Your task to perform on an android device: turn off picture-in-picture Image 0: 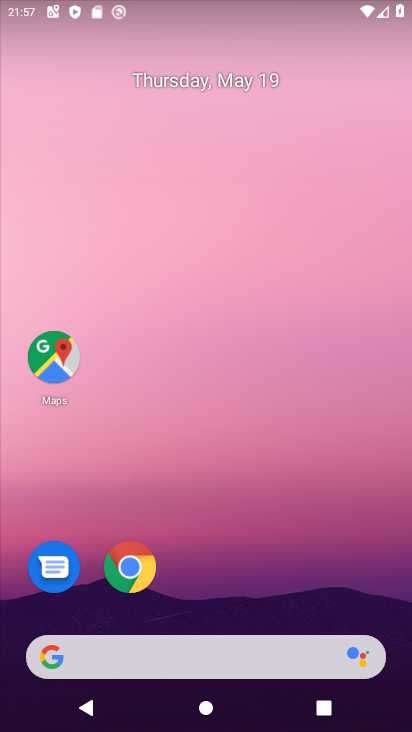
Step 0: click (142, 564)
Your task to perform on an android device: turn off picture-in-picture Image 1: 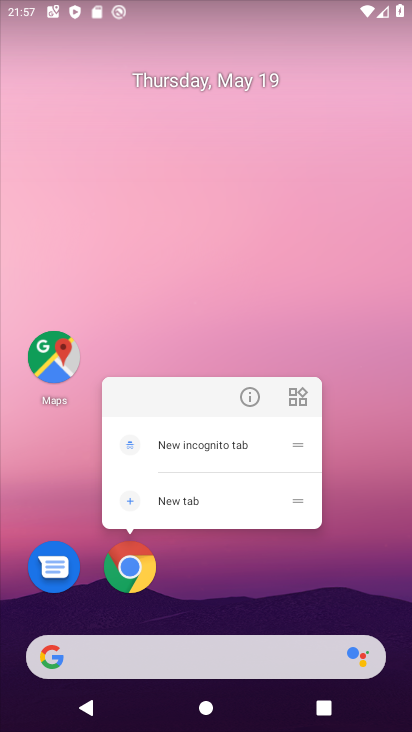
Step 1: click (247, 392)
Your task to perform on an android device: turn off picture-in-picture Image 2: 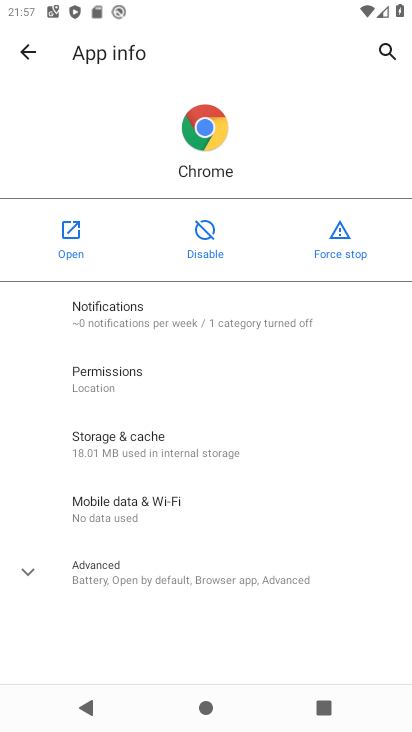
Step 2: click (124, 579)
Your task to perform on an android device: turn off picture-in-picture Image 3: 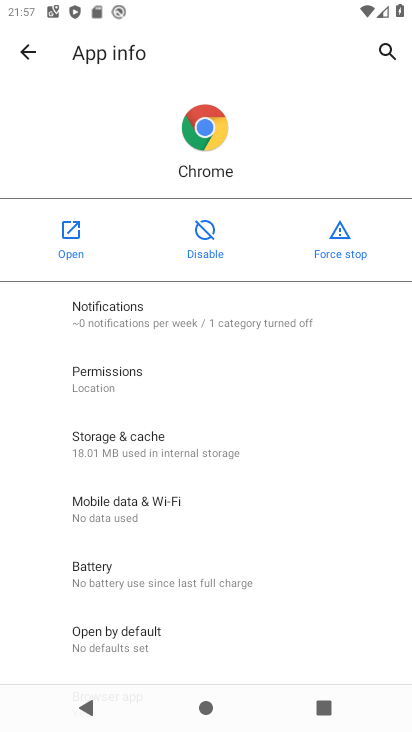
Step 3: drag from (123, 580) to (122, 193)
Your task to perform on an android device: turn off picture-in-picture Image 4: 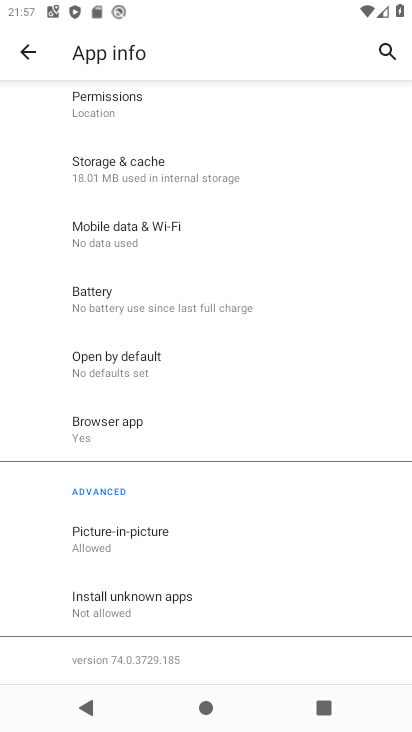
Step 4: click (118, 540)
Your task to perform on an android device: turn off picture-in-picture Image 5: 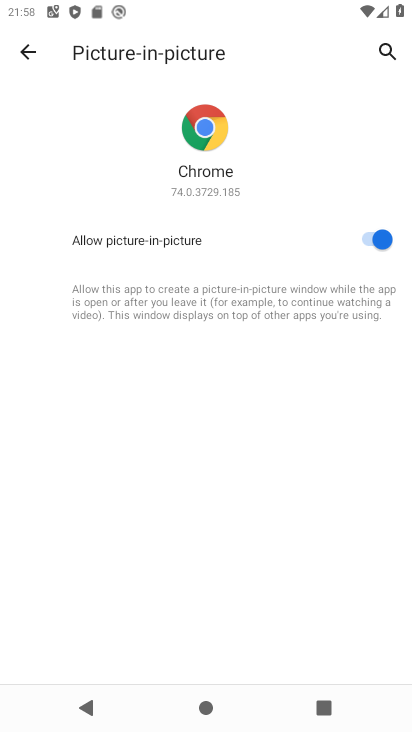
Step 5: click (370, 223)
Your task to perform on an android device: turn off picture-in-picture Image 6: 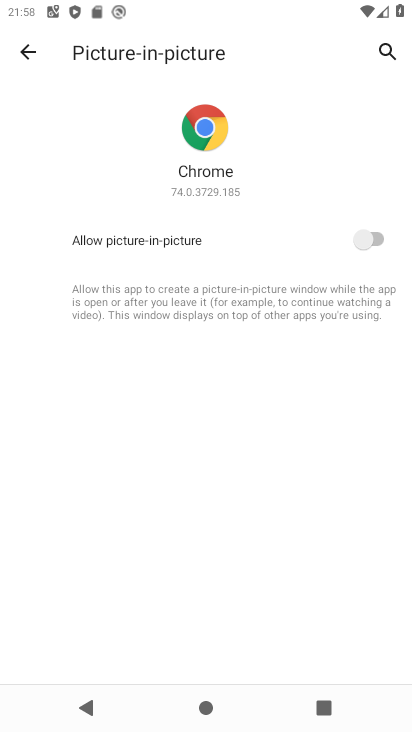
Step 6: task complete